Your task to perform on an android device: Turn on the flashlight Image 0: 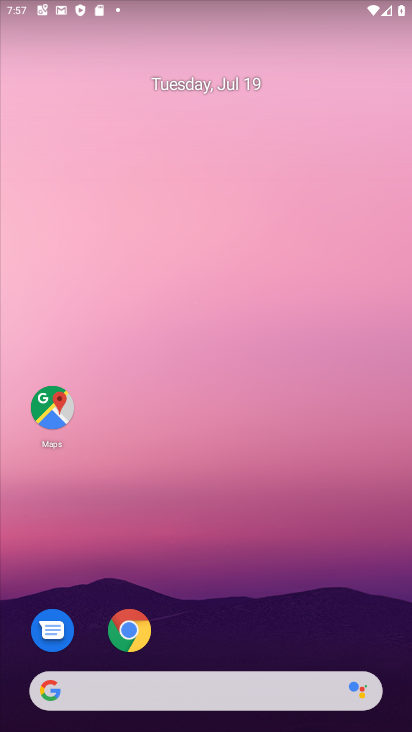
Step 0: drag from (197, 569) to (197, 48)
Your task to perform on an android device: Turn on the flashlight Image 1: 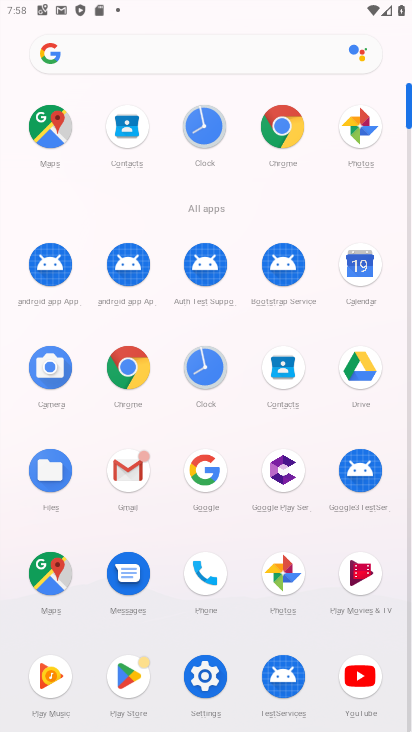
Step 1: task complete